Your task to perform on an android device: What is the recent news? Image 0: 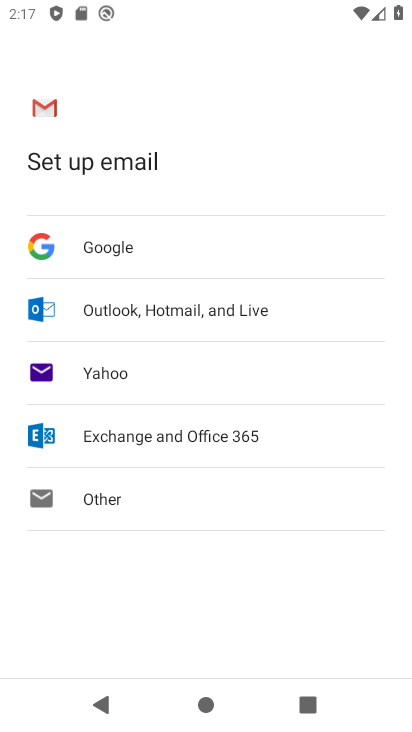
Step 0: press home button
Your task to perform on an android device: What is the recent news? Image 1: 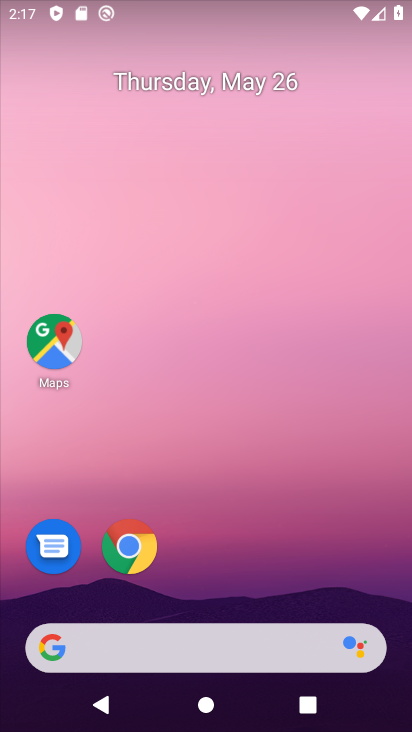
Step 1: task complete